Your task to perform on an android device: Open the web browser Image 0: 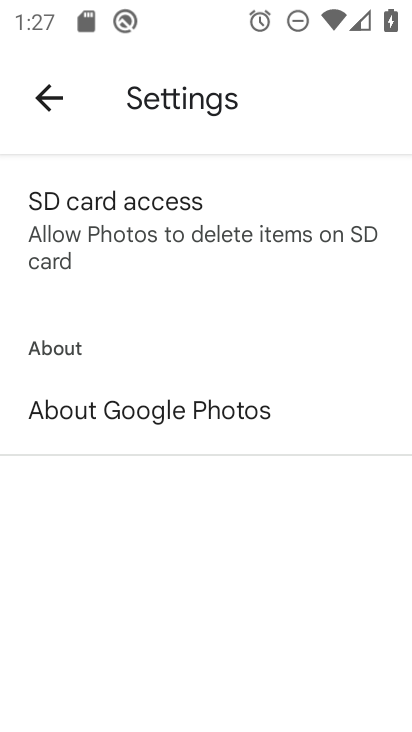
Step 0: press home button
Your task to perform on an android device: Open the web browser Image 1: 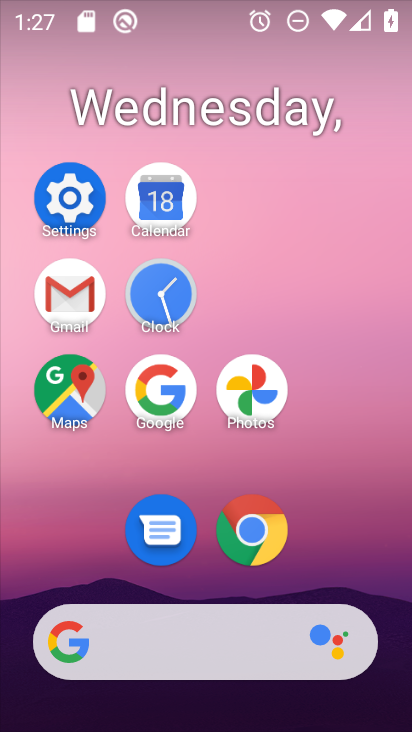
Step 1: click (239, 517)
Your task to perform on an android device: Open the web browser Image 2: 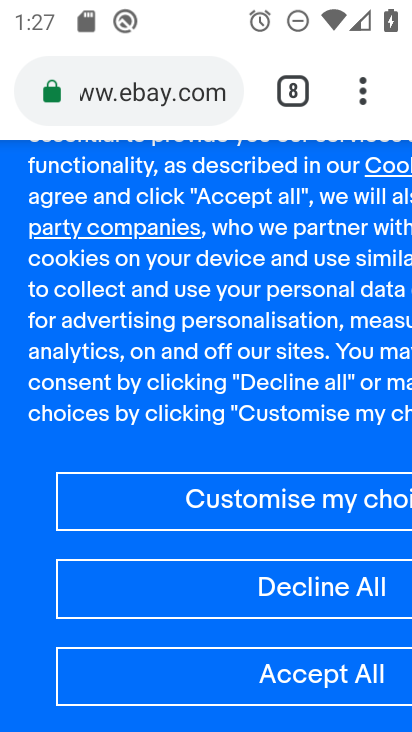
Step 2: task complete